Your task to perform on an android device: snooze an email in the gmail app Image 0: 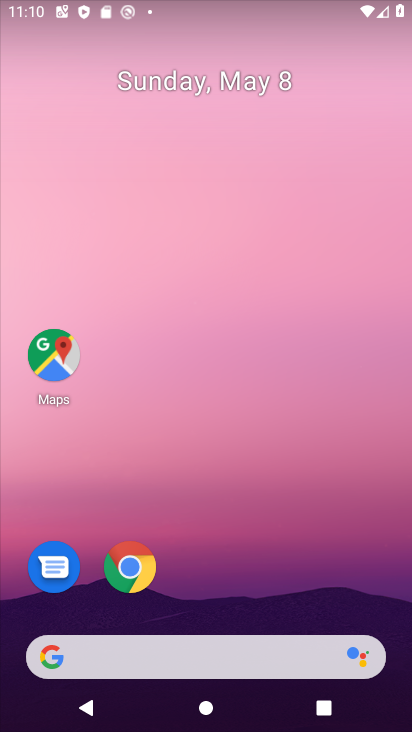
Step 0: click (387, 270)
Your task to perform on an android device: snooze an email in the gmail app Image 1: 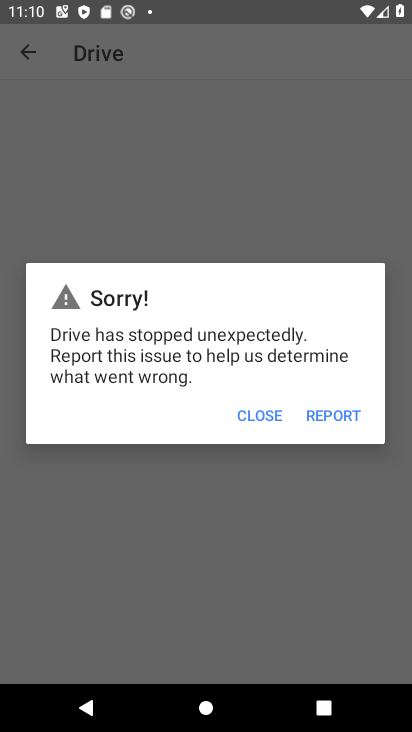
Step 1: press home button
Your task to perform on an android device: snooze an email in the gmail app Image 2: 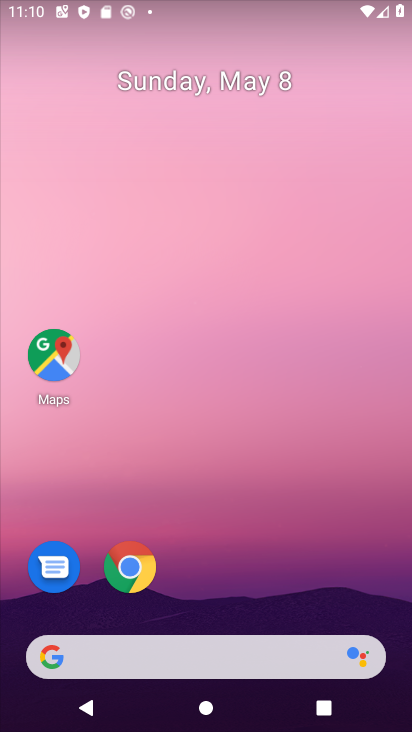
Step 2: drag from (208, 595) to (263, 136)
Your task to perform on an android device: snooze an email in the gmail app Image 3: 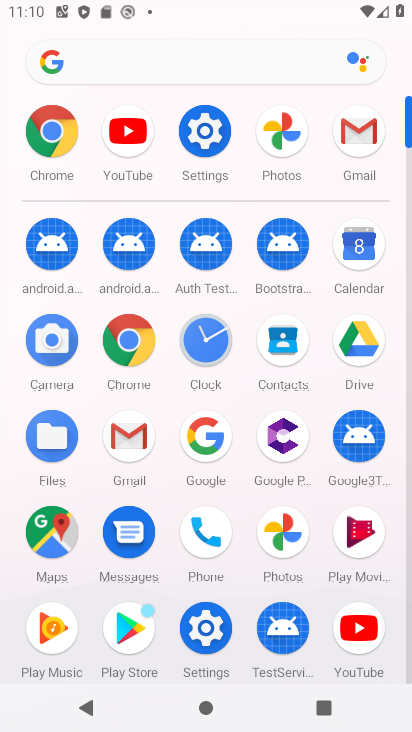
Step 3: click (131, 431)
Your task to perform on an android device: snooze an email in the gmail app Image 4: 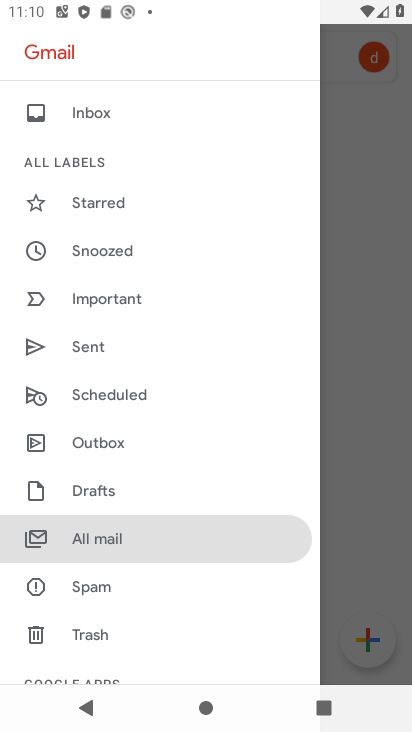
Step 4: click (86, 537)
Your task to perform on an android device: snooze an email in the gmail app Image 5: 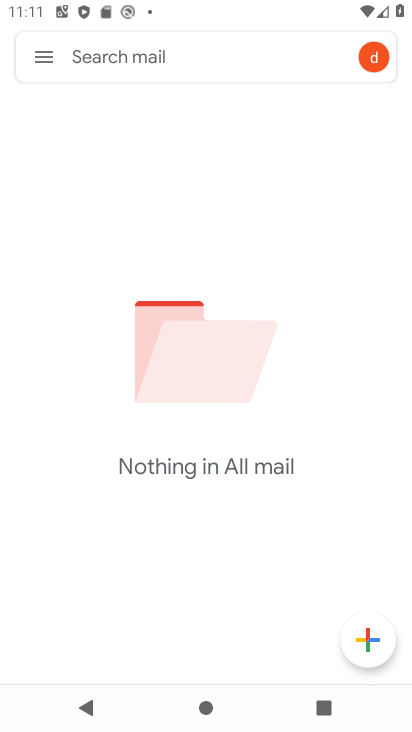
Step 5: task complete